Your task to perform on an android device: change timer sound Image 0: 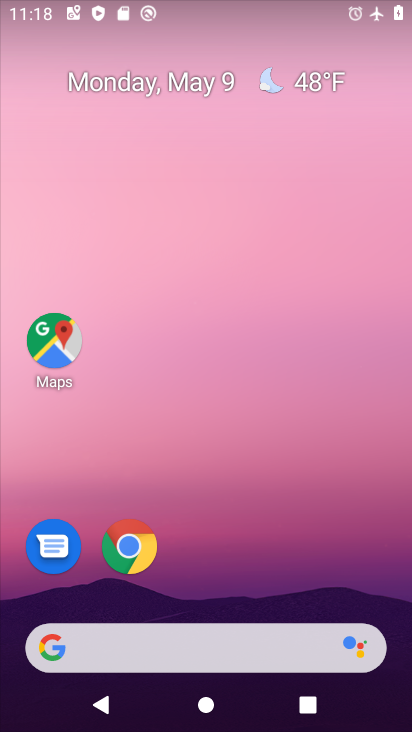
Step 0: drag from (333, 587) to (329, 25)
Your task to perform on an android device: change timer sound Image 1: 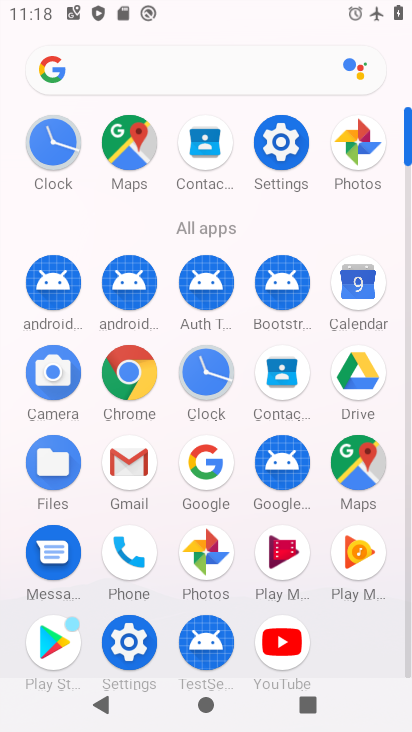
Step 1: click (49, 153)
Your task to perform on an android device: change timer sound Image 2: 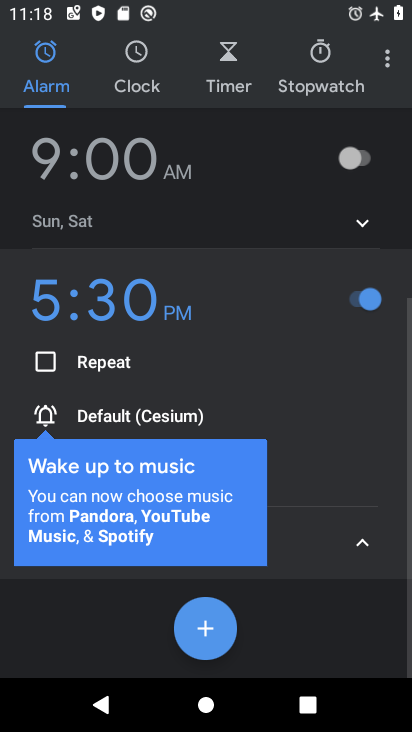
Step 2: click (387, 64)
Your task to perform on an android device: change timer sound Image 3: 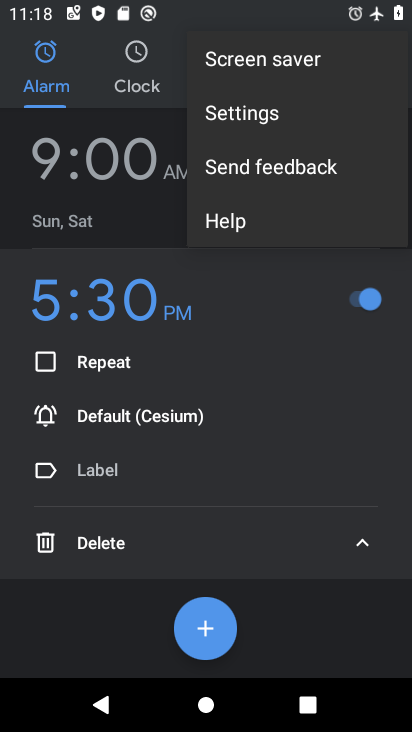
Step 3: click (251, 116)
Your task to perform on an android device: change timer sound Image 4: 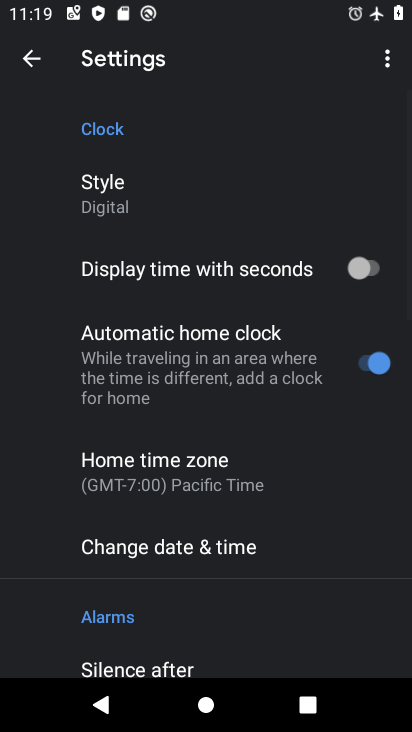
Step 4: drag from (211, 536) to (233, 132)
Your task to perform on an android device: change timer sound Image 5: 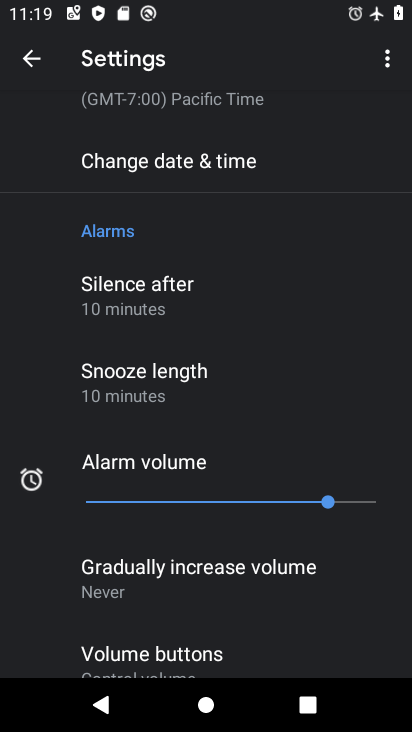
Step 5: drag from (198, 509) to (216, 203)
Your task to perform on an android device: change timer sound Image 6: 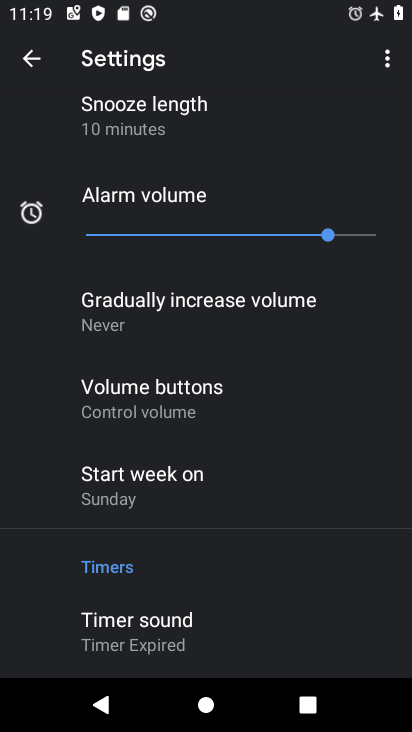
Step 6: drag from (160, 541) to (179, 235)
Your task to perform on an android device: change timer sound Image 7: 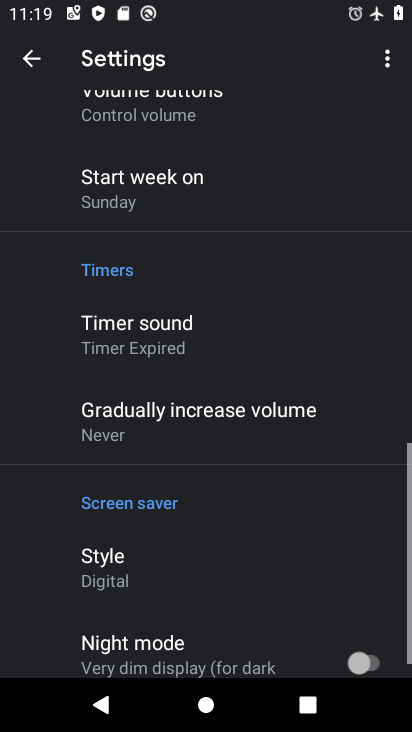
Step 7: click (150, 340)
Your task to perform on an android device: change timer sound Image 8: 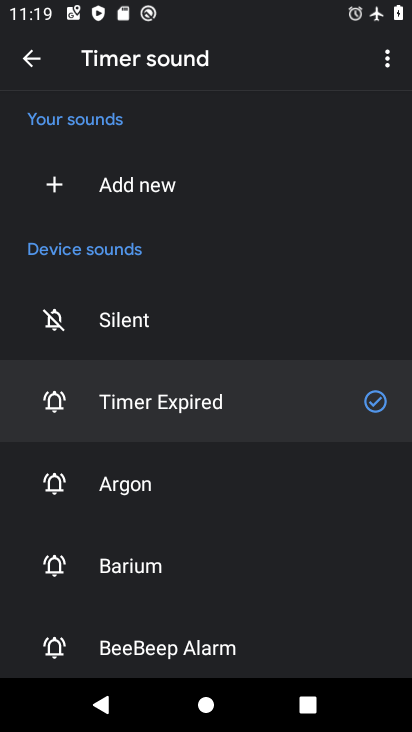
Step 8: click (124, 488)
Your task to perform on an android device: change timer sound Image 9: 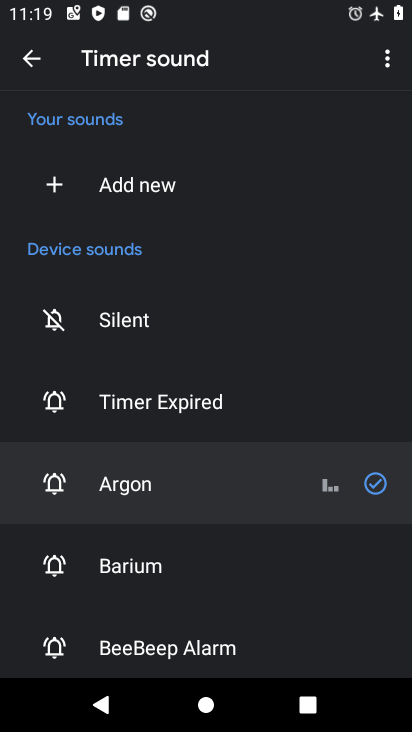
Step 9: task complete